Your task to perform on an android device: Go to Amazon Image 0: 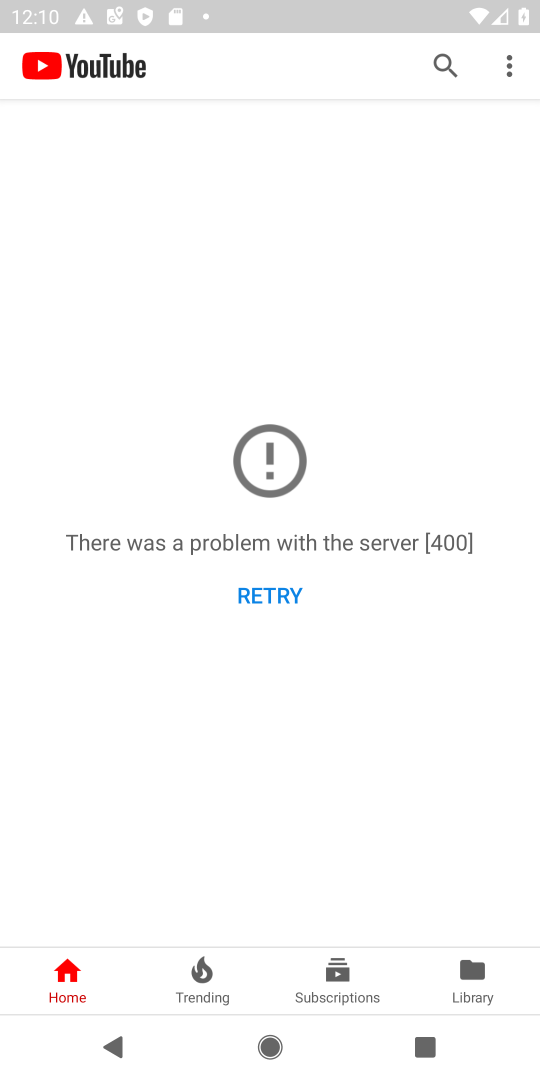
Step 0: press home button
Your task to perform on an android device: Go to Amazon Image 1: 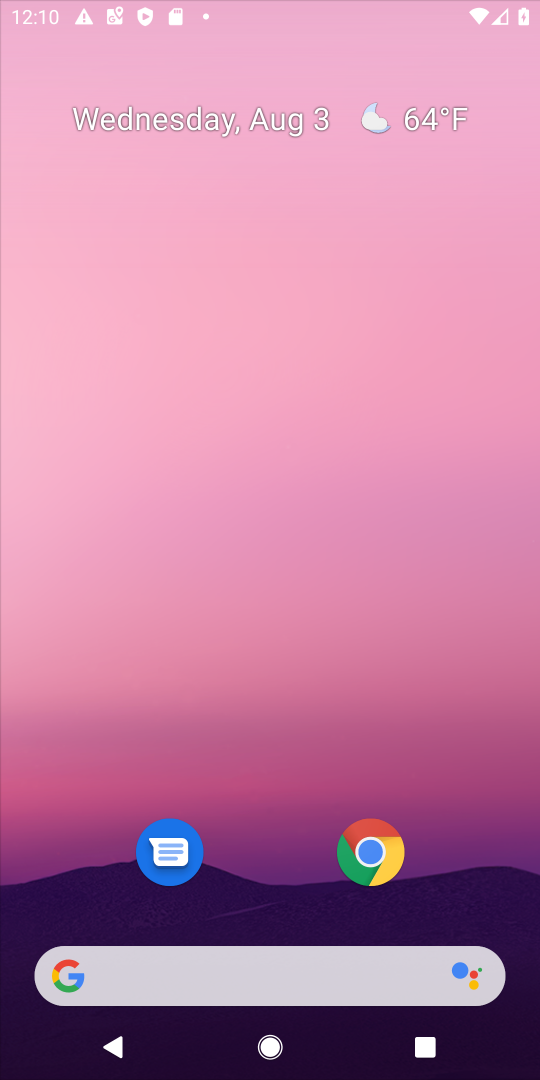
Step 1: drag from (485, 882) to (247, 92)
Your task to perform on an android device: Go to Amazon Image 2: 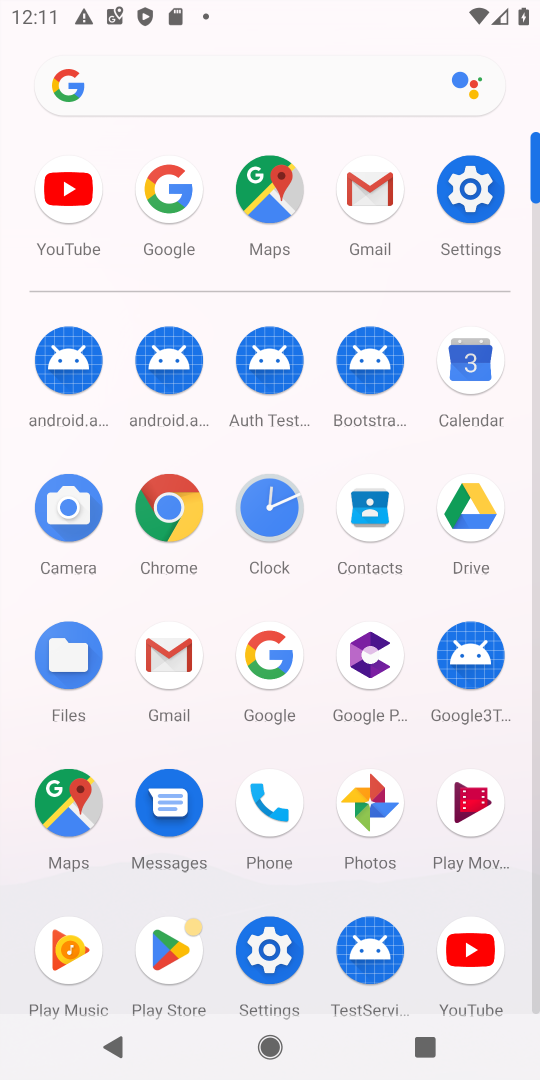
Step 2: click (259, 669)
Your task to perform on an android device: Go to Amazon Image 3: 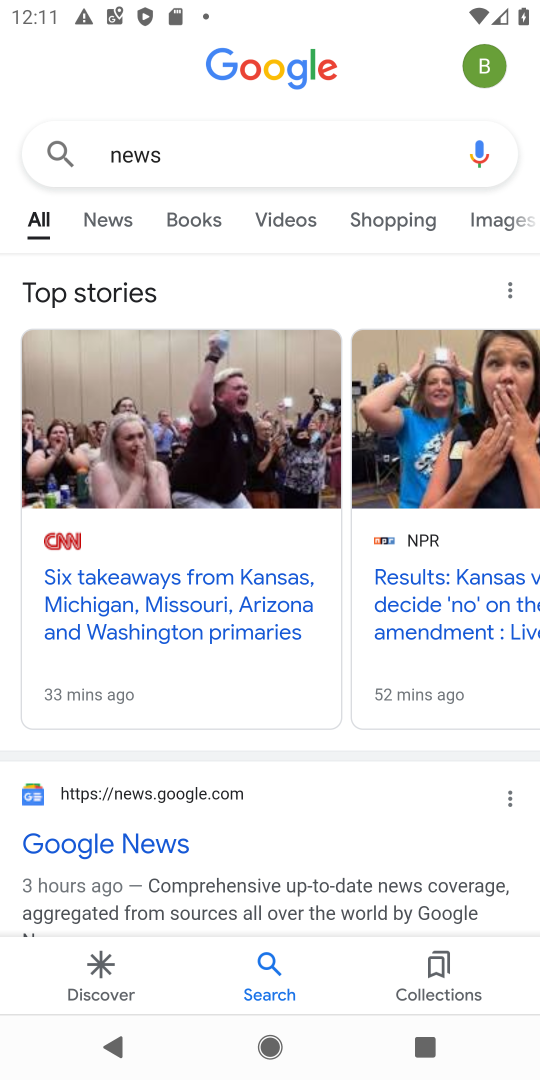
Step 3: press back button
Your task to perform on an android device: Go to Amazon Image 4: 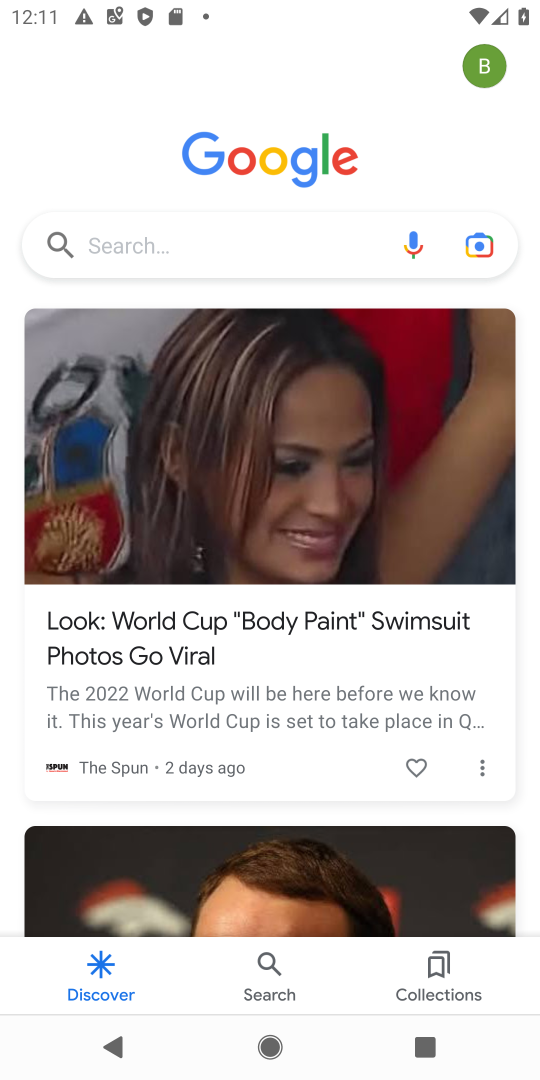
Step 4: click (125, 238)
Your task to perform on an android device: Go to Amazon Image 5: 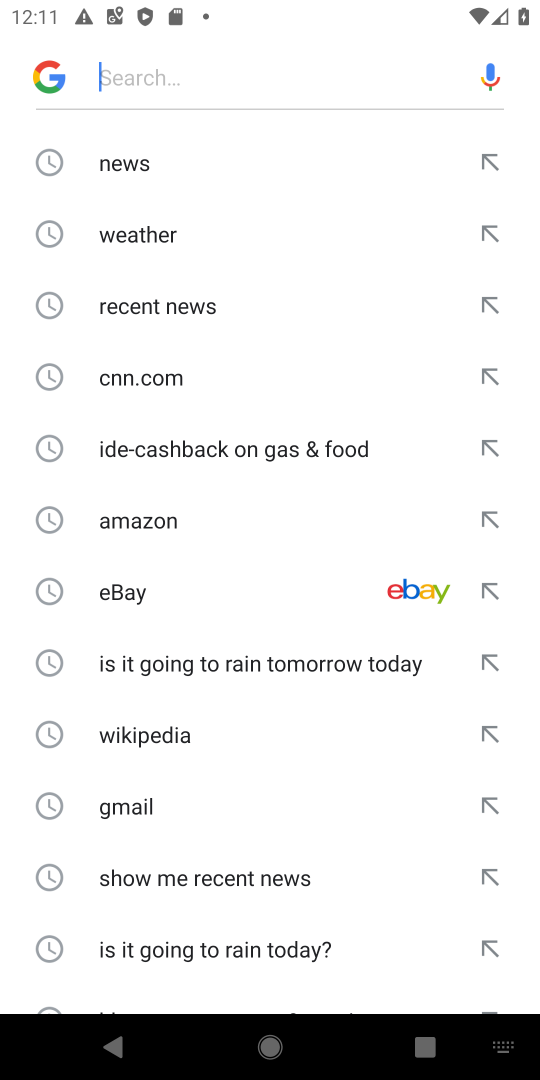
Step 5: drag from (240, 817) to (215, 159)
Your task to perform on an android device: Go to Amazon Image 6: 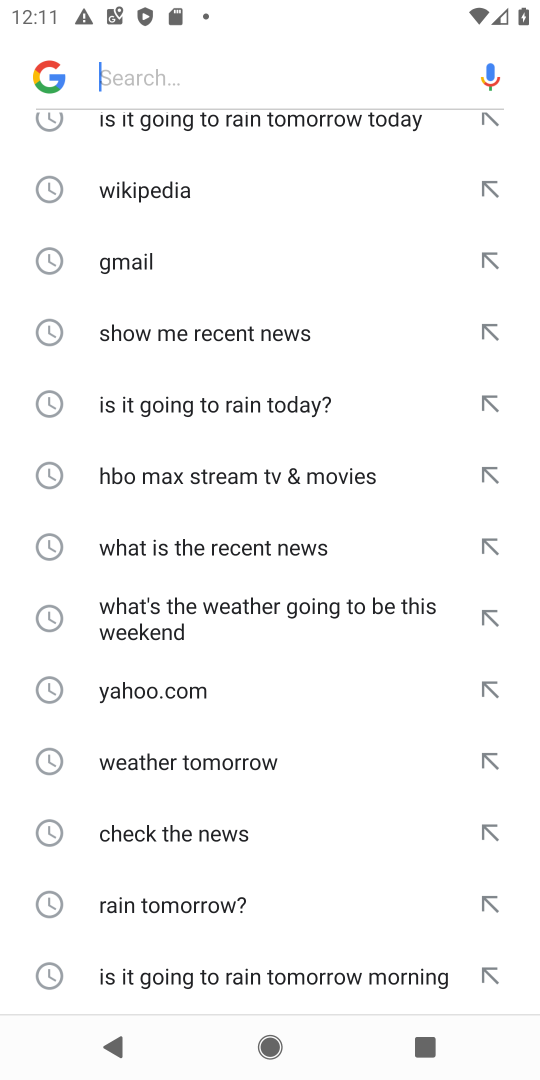
Step 6: drag from (266, 946) to (323, 238)
Your task to perform on an android device: Go to Amazon Image 7: 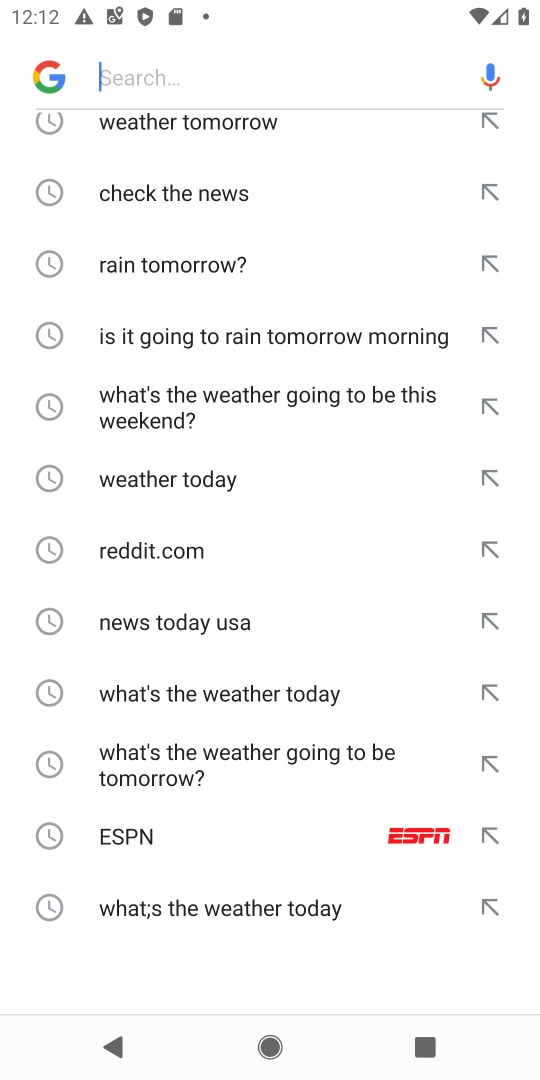
Step 7: type "Amazon"
Your task to perform on an android device: Go to Amazon Image 8: 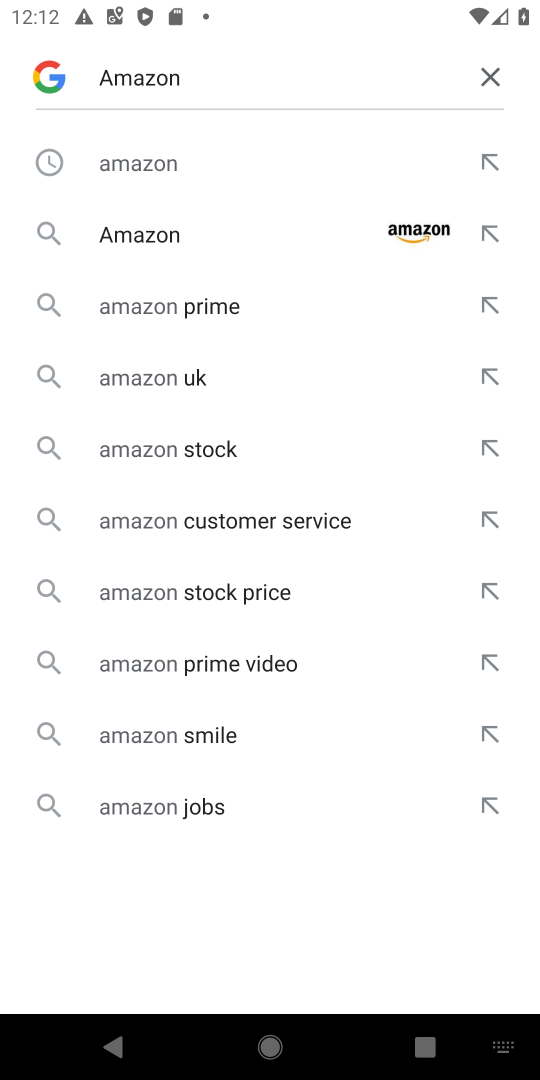
Step 8: click (219, 256)
Your task to perform on an android device: Go to Amazon Image 9: 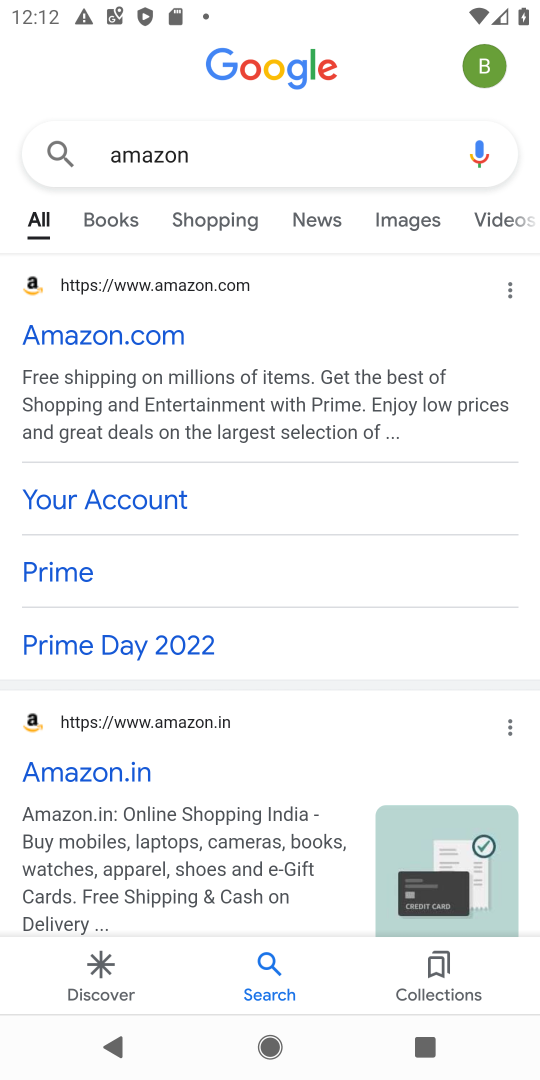
Step 9: task complete